Your task to perform on an android device: Check the weather Image 0: 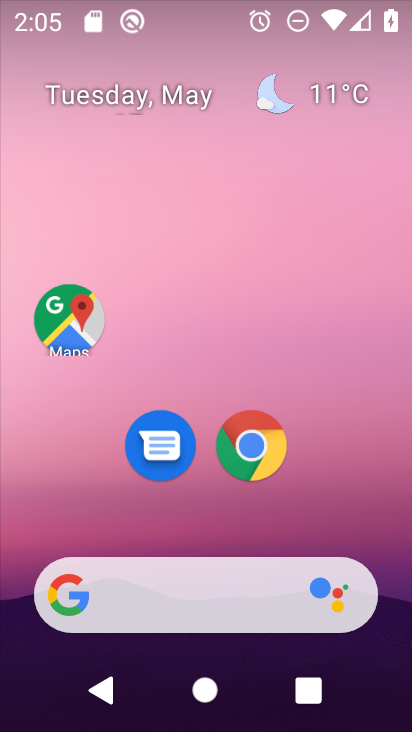
Step 0: click (330, 99)
Your task to perform on an android device: Check the weather Image 1: 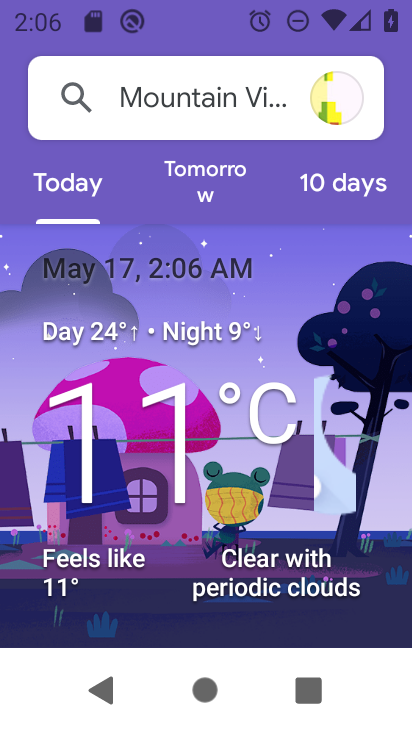
Step 1: task complete